Your task to perform on an android device: Open Google Maps Image 0: 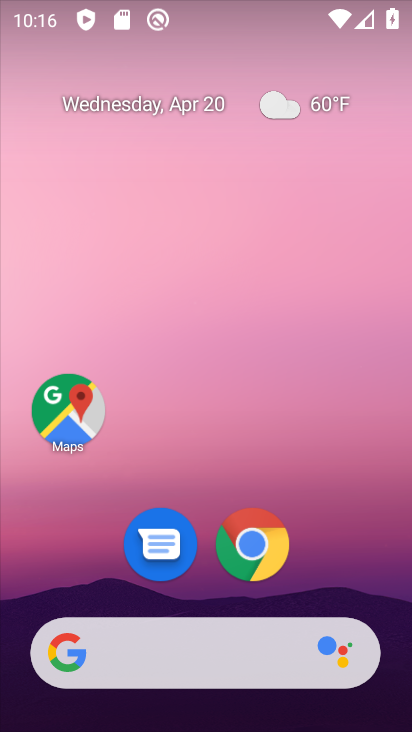
Step 0: drag from (388, 514) to (333, 59)
Your task to perform on an android device: Open Google Maps Image 1: 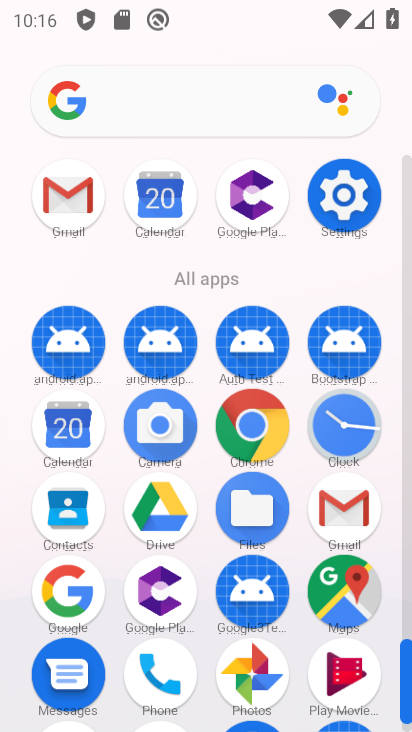
Step 1: click (351, 597)
Your task to perform on an android device: Open Google Maps Image 2: 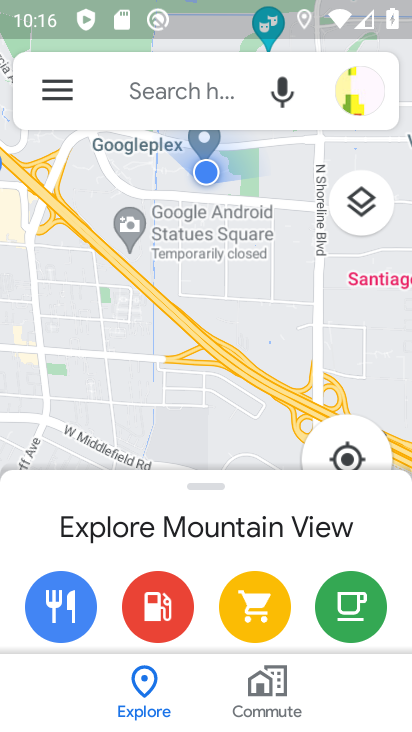
Step 2: task complete